Your task to perform on an android device: Do I have any events tomorrow? Image 0: 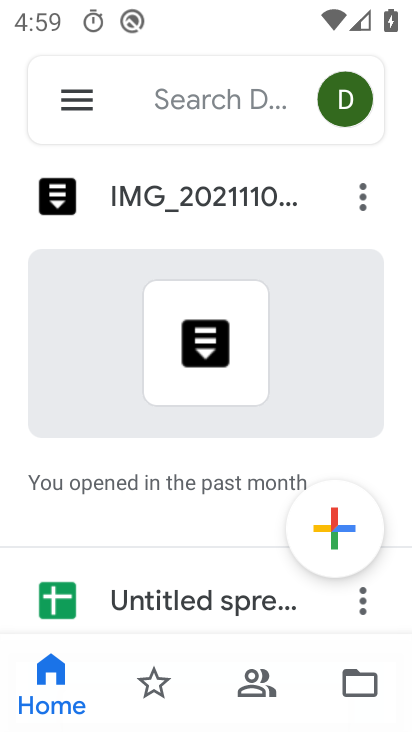
Step 0: press home button
Your task to perform on an android device: Do I have any events tomorrow? Image 1: 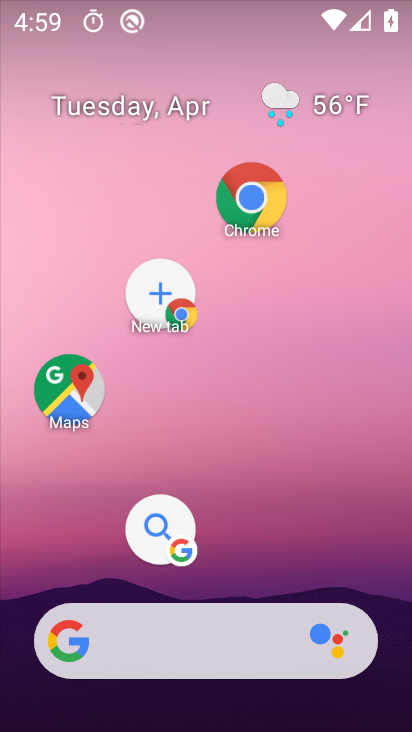
Step 1: drag from (198, 588) to (315, 289)
Your task to perform on an android device: Do I have any events tomorrow? Image 2: 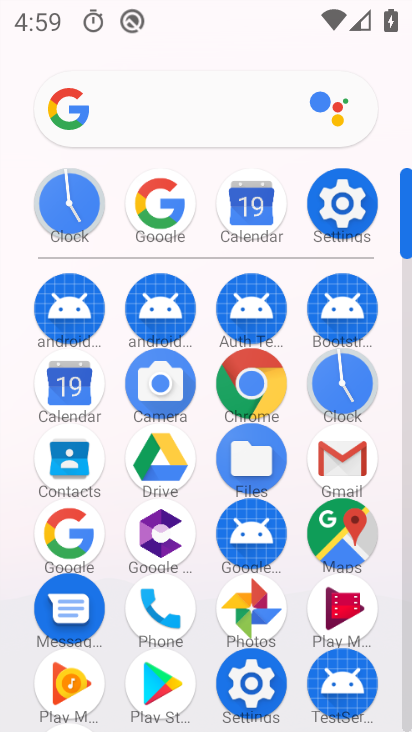
Step 2: click (257, 206)
Your task to perform on an android device: Do I have any events tomorrow? Image 3: 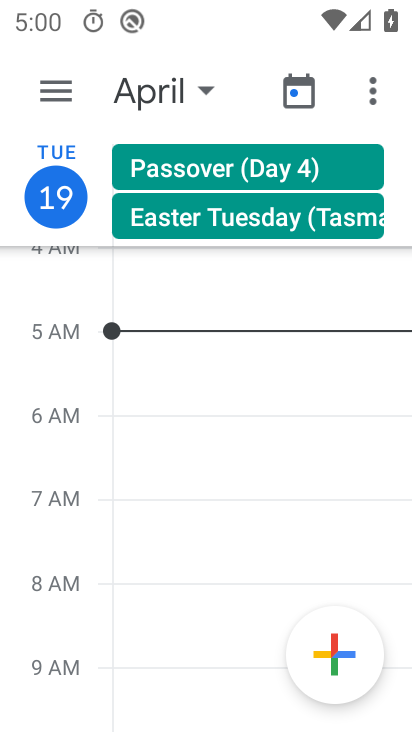
Step 3: click (147, 91)
Your task to perform on an android device: Do I have any events tomorrow? Image 4: 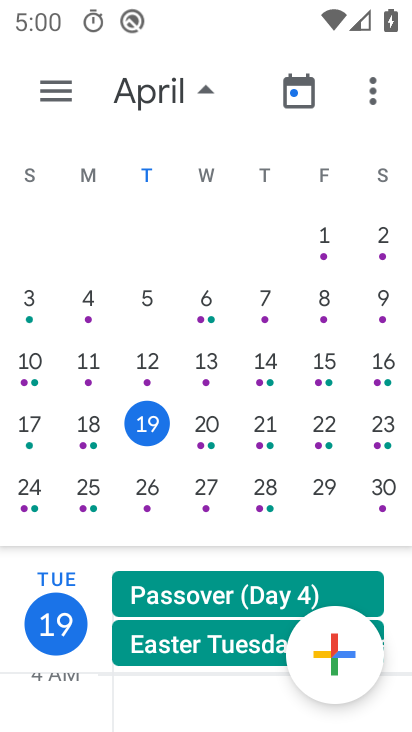
Step 4: click (202, 423)
Your task to perform on an android device: Do I have any events tomorrow? Image 5: 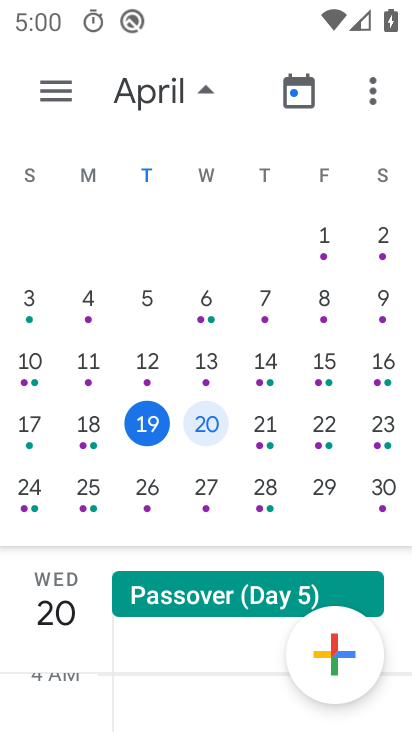
Step 5: task complete